Your task to perform on an android device: add a label to a message in the gmail app Image 0: 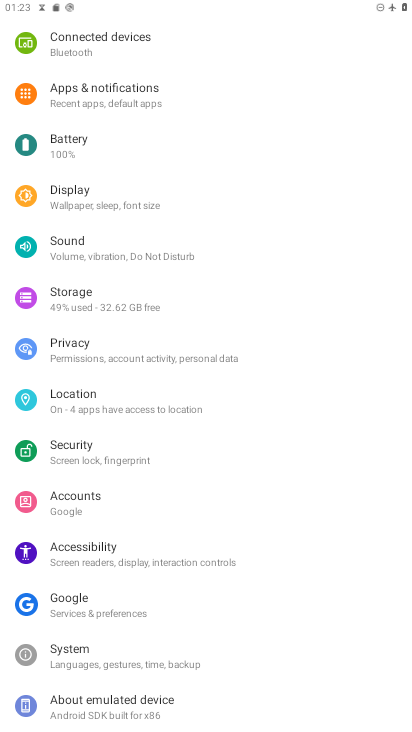
Step 0: press home button
Your task to perform on an android device: add a label to a message in the gmail app Image 1: 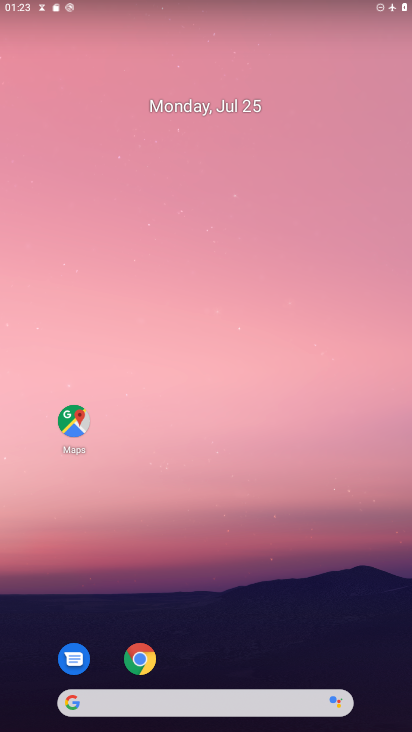
Step 1: drag from (271, 611) to (269, 334)
Your task to perform on an android device: add a label to a message in the gmail app Image 2: 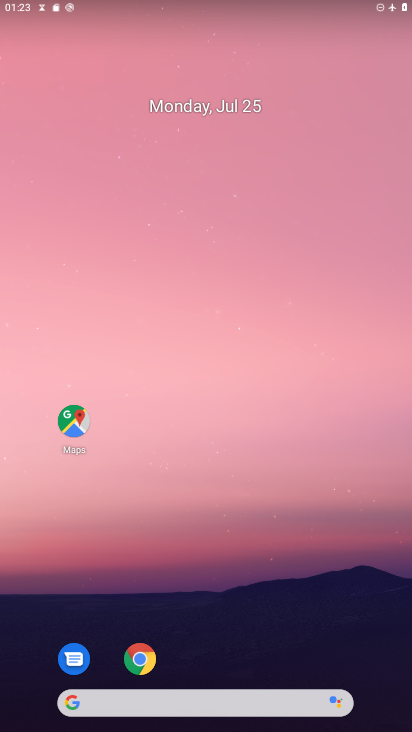
Step 2: drag from (177, 603) to (230, 356)
Your task to perform on an android device: add a label to a message in the gmail app Image 3: 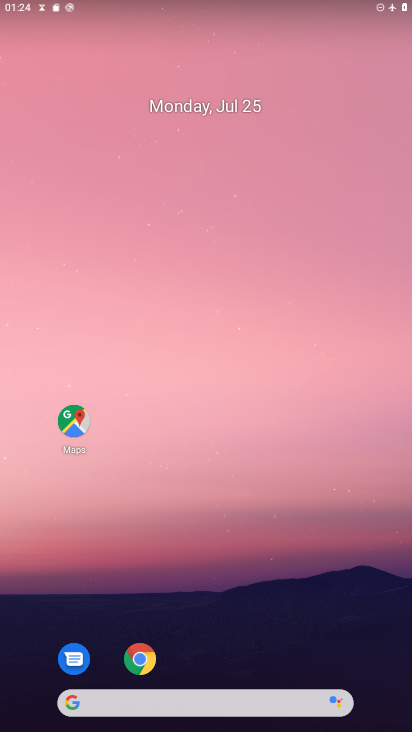
Step 3: drag from (310, 644) to (312, 351)
Your task to perform on an android device: add a label to a message in the gmail app Image 4: 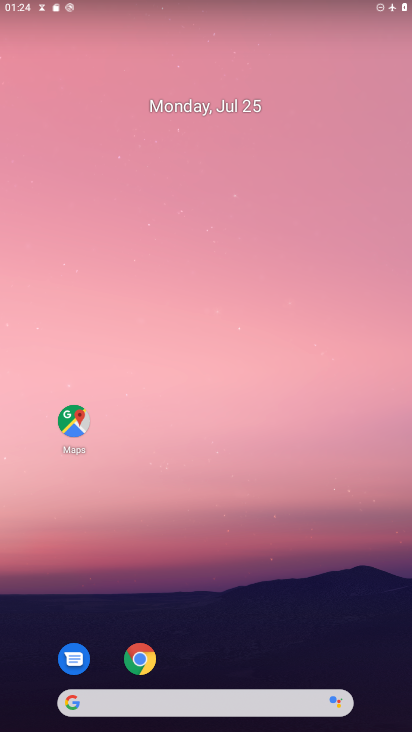
Step 4: drag from (234, 582) to (248, 99)
Your task to perform on an android device: add a label to a message in the gmail app Image 5: 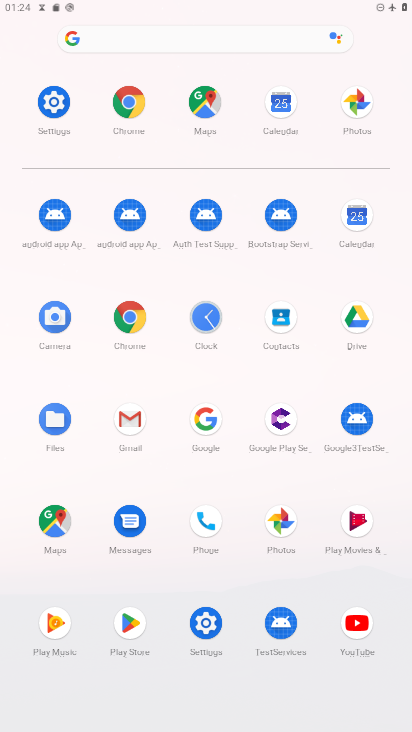
Step 5: click (132, 420)
Your task to perform on an android device: add a label to a message in the gmail app Image 6: 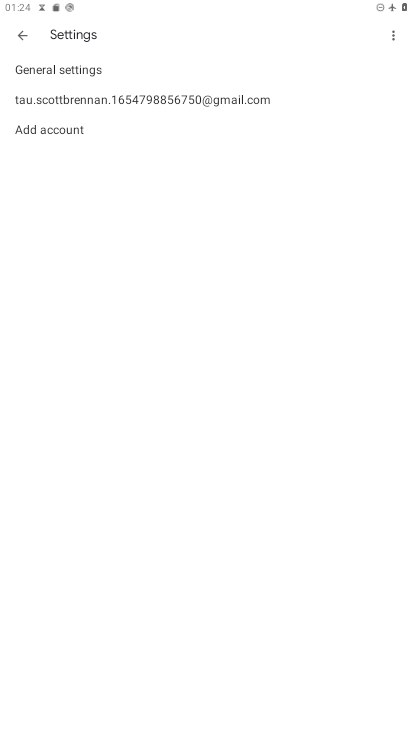
Step 6: click (23, 37)
Your task to perform on an android device: add a label to a message in the gmail app Image 7: 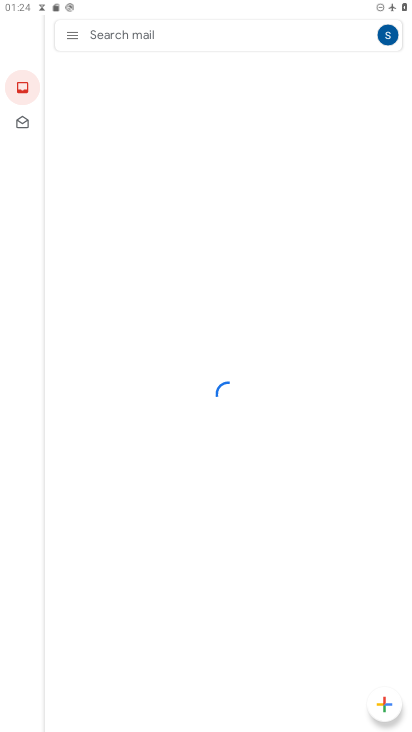
Step 7: click (79, 29)
Your task to perform on an android device: add a label to a message in the gmail app Image 8: 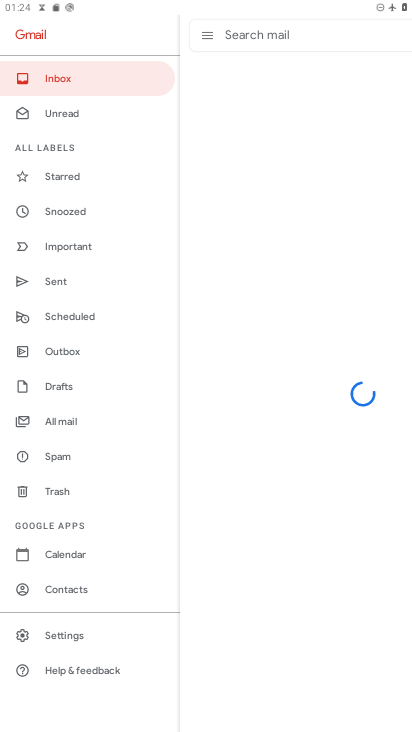
Step 8: click (67, 416)
Your task to perform on an android device: add a label to a message in the gmail app Image 9: 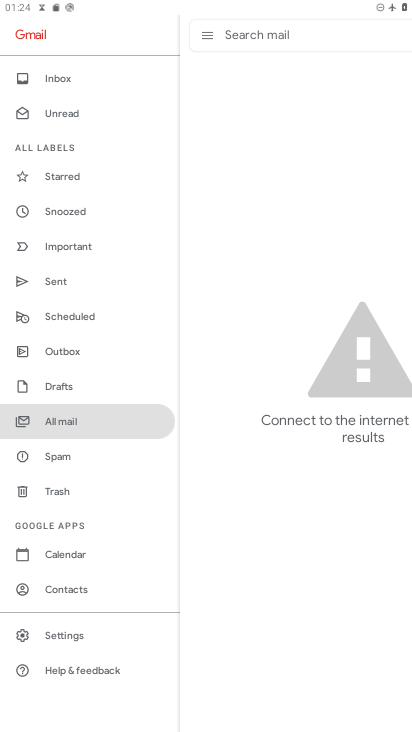
Step 9: task complete